Your task to perform on an android device: turn on wifi Image 0: 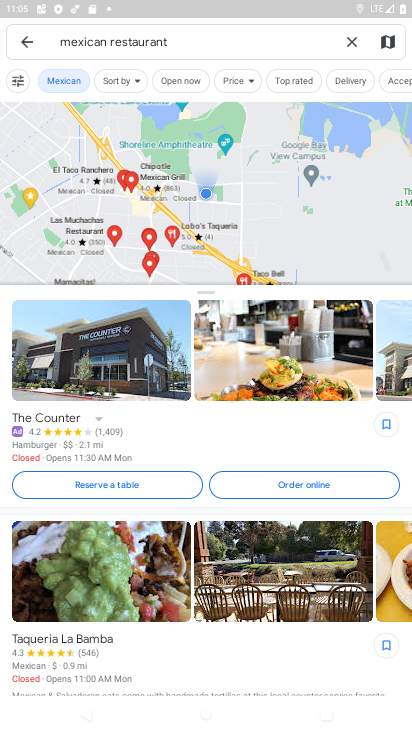
Step 0: press home button
Your task to perform on an android device: turn on wifi Image 1: 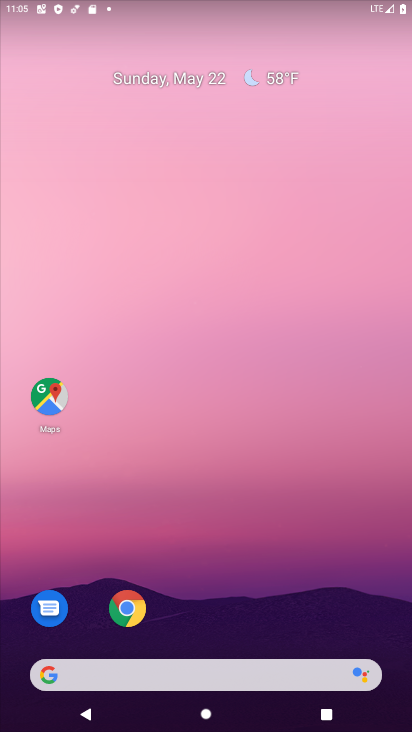
Step 1: drag from (222, 725) to (225, 98)
Your task to perform on an android device: turn on wifi Image 2: 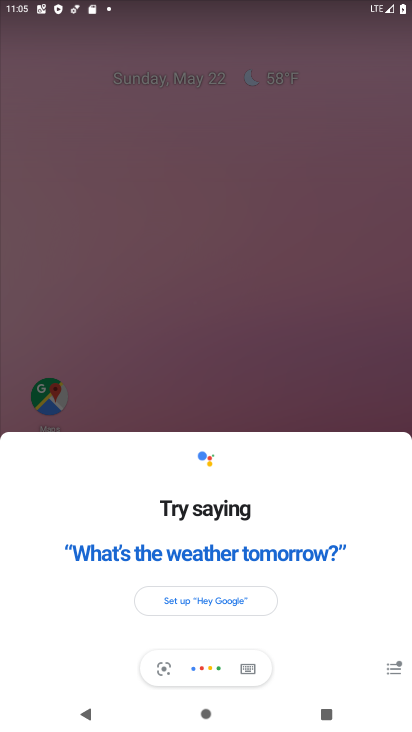
Step 2: press home button
Your task to perform on an android device: turn on wifi Image 3: 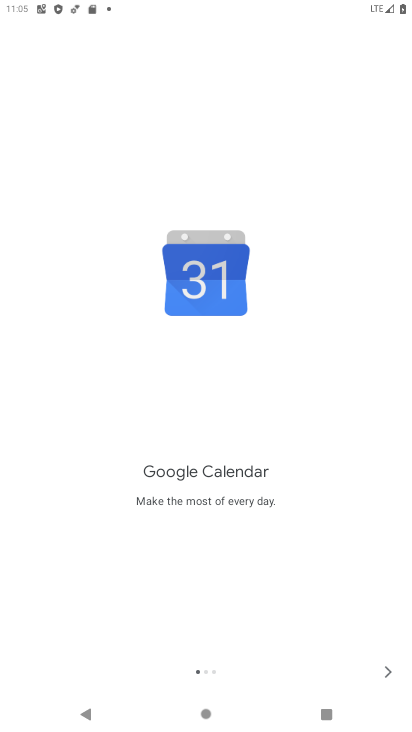
Step 3: press home button
Your task to perform on an android device: turn on wifi Image 4: 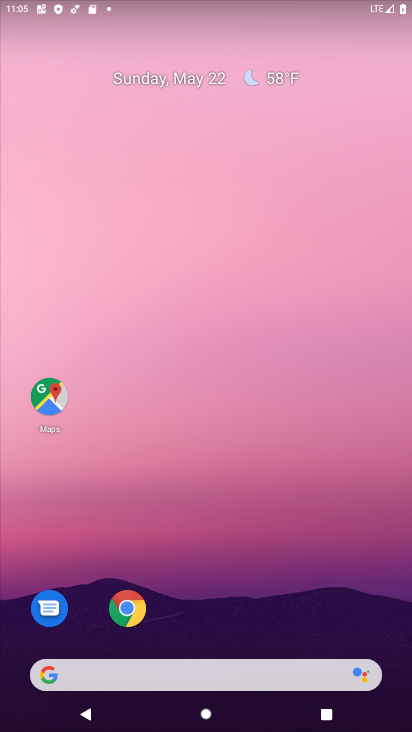
Step 4: drag from (233, 707) to (245, 1)
Your task to perform on an android device: turn on wifi Image 5: 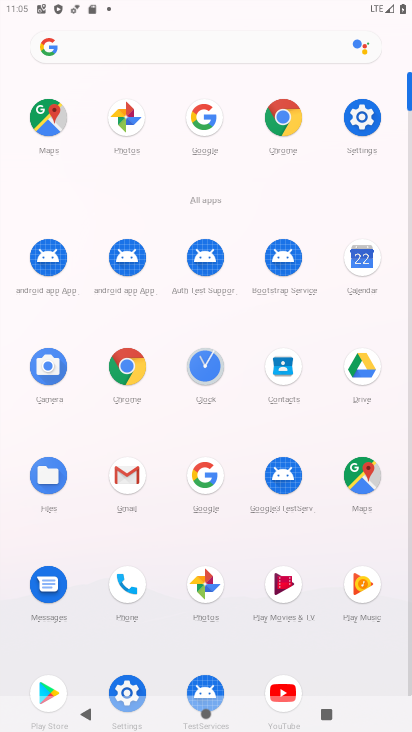
Step 5: click (357, 117)
Your task to perform on an android device: turn on wifi Image 6: 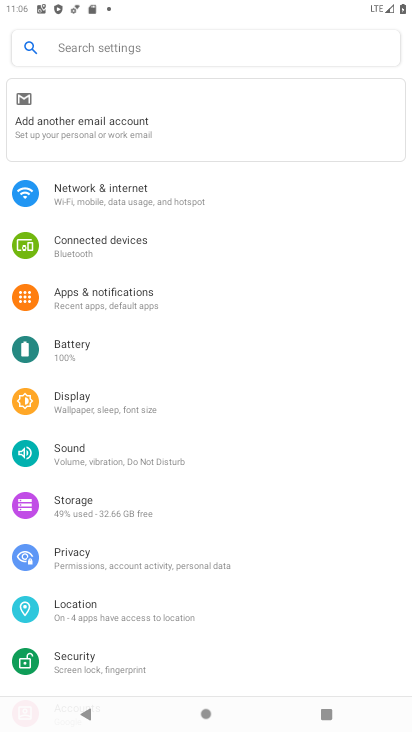
Step 6: click (80, 195)
Your task to perform on an android device: turn on wifi Image 7: 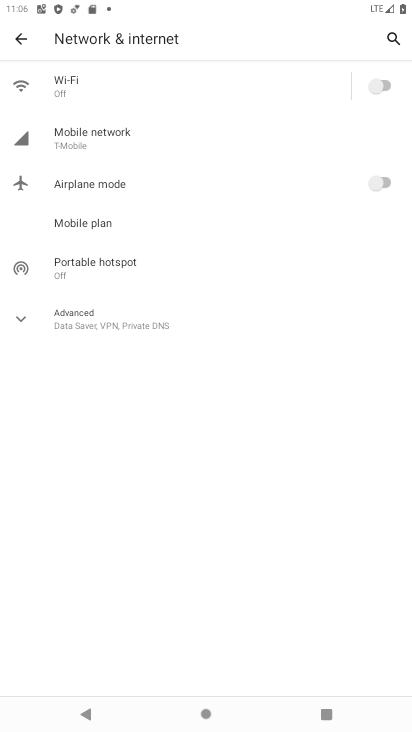
Step 7: click (386, 85)
Your task to perform on an android device: turn on wifi Image 8: 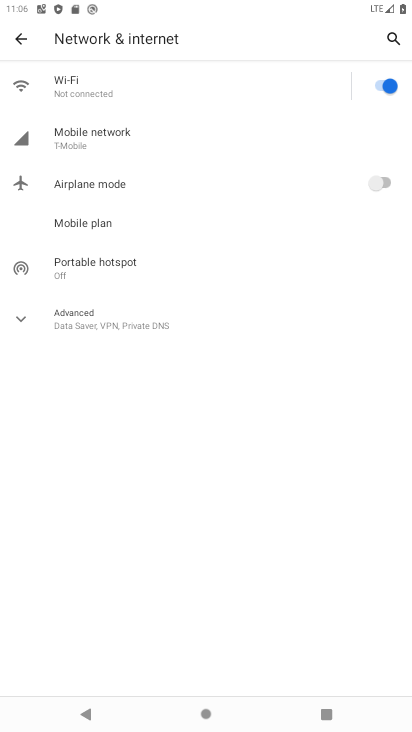
Step 8: task complete